Your task to perform on an android device: turn off airplane mode Image 0: 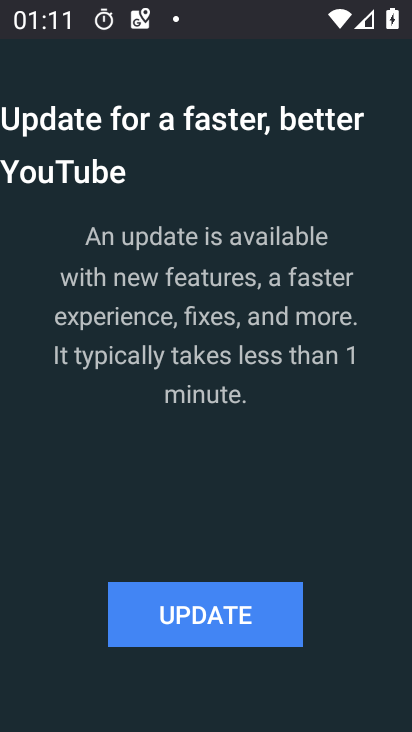
Step 0: press home button
Your task to perform on an android device: turn off airplane mode Image 1: 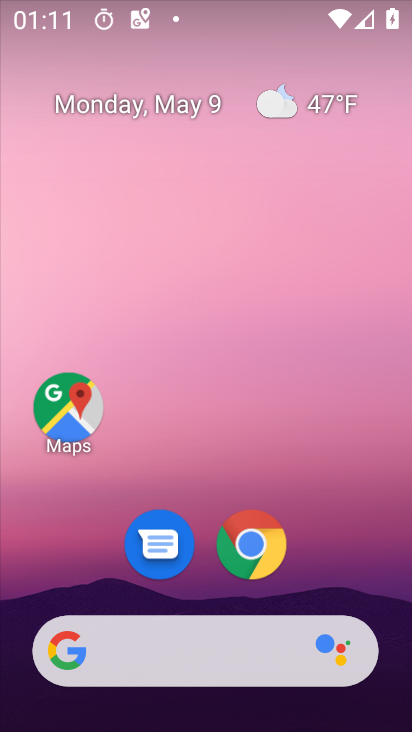
Step 1: task complete